Your task to perform on an android device: Go to Wikipedia Image 0: 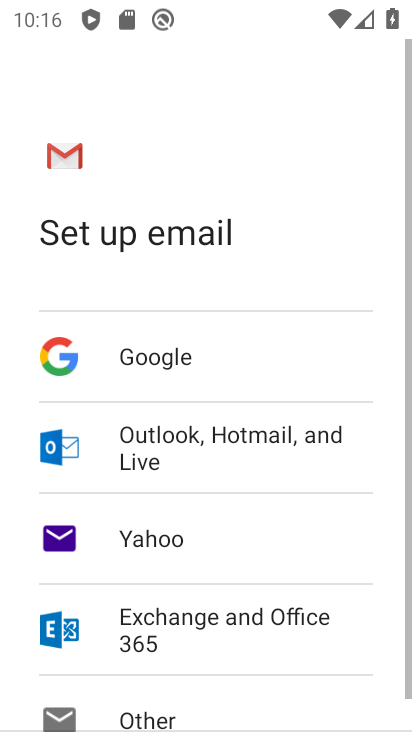
Step 0: press home button
Your task to perform on an android device: Go to Wikipedia Image 1: 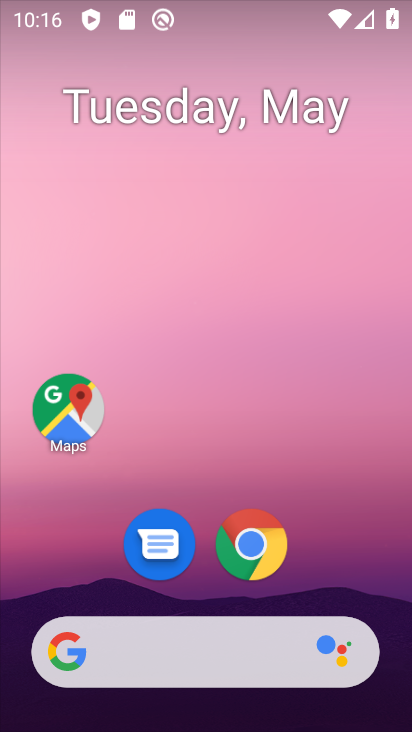
Step 1: click (268, 550)
Your task to perform on an android device: Go to Wikipedia Image 2: 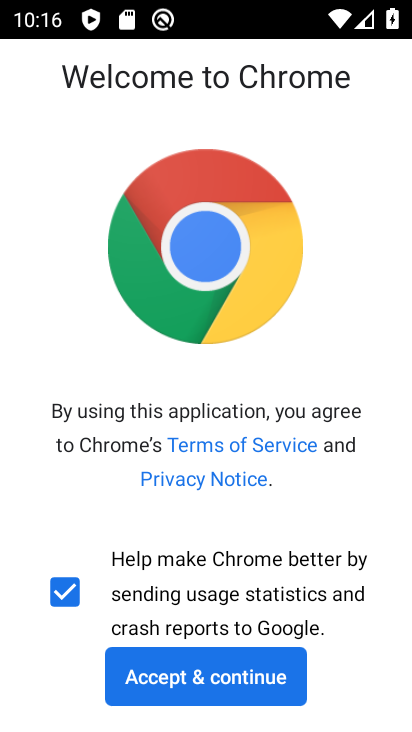
Step 2: click (243, 665)
Your task to perform on an android device: Go to Wikipedia Image 3: 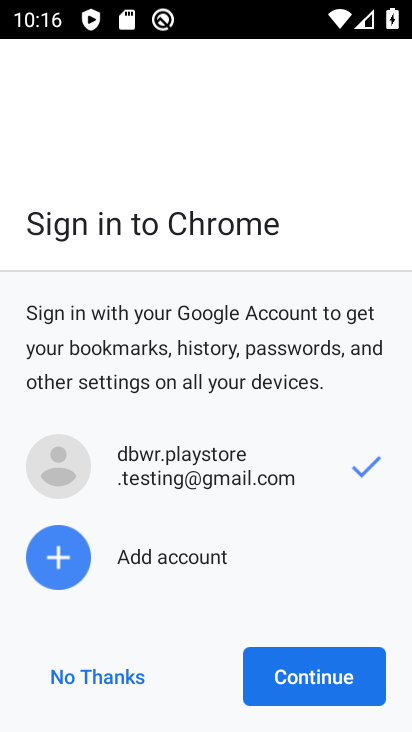
Step 3: click (303, 669)
Your task to perform on an android device: Go to Wikipedia Image 4: 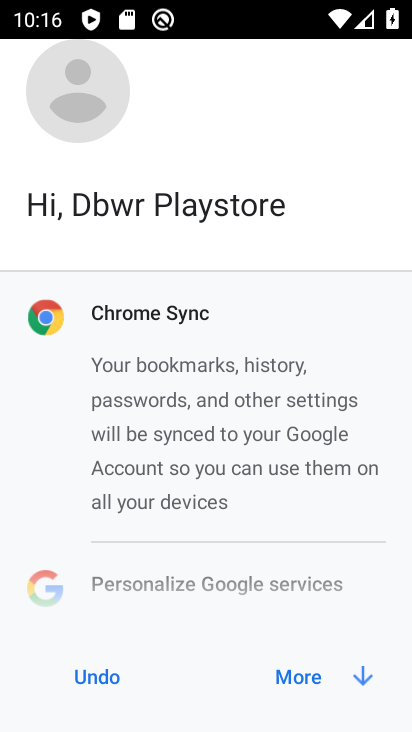
Step 4: click (303, 669)
Your task to perform on an android device: Go to Wikipedia Image 5: 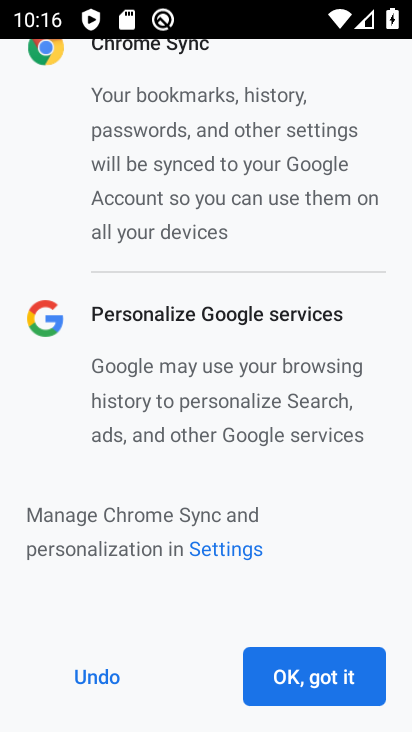
Step 5: click (303, 669)
Your task to perform on an android device: Go to Wikipedia Image 6: 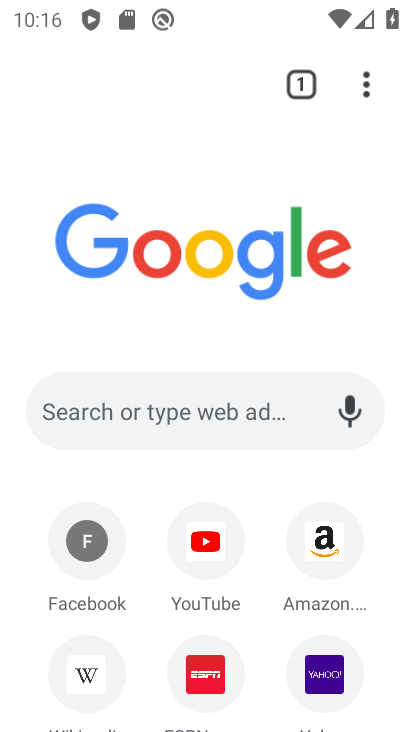
Step 6: click (95, 661)
Your task to perform on an android device: Go to Wikipedia Image 7: 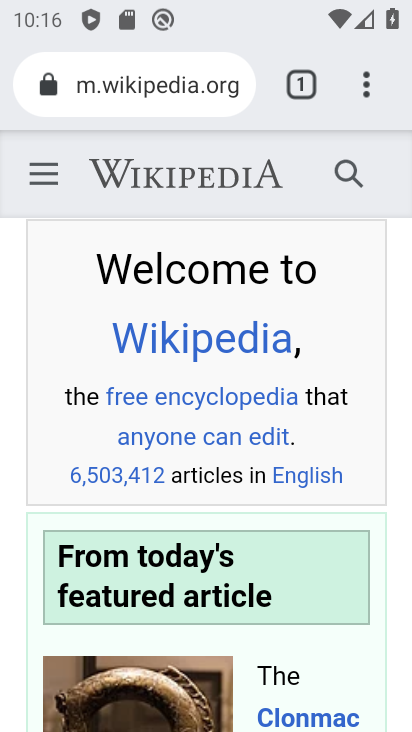
Step 7: task complete